Your task to perform on an android device: check storage Image 0: 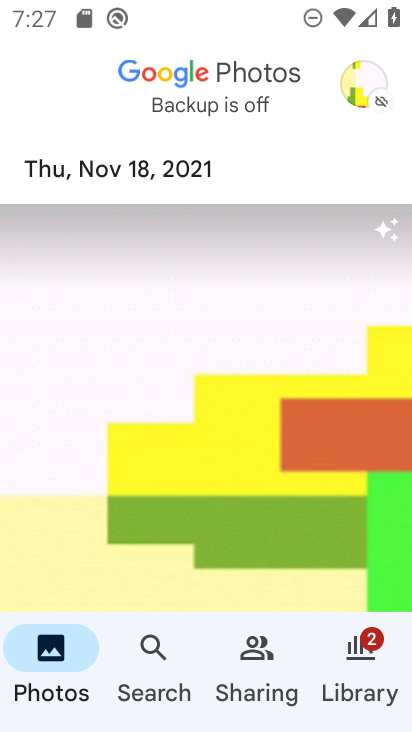
Step 0: press home button
Your task to perform on an android device: check storage Image 1: 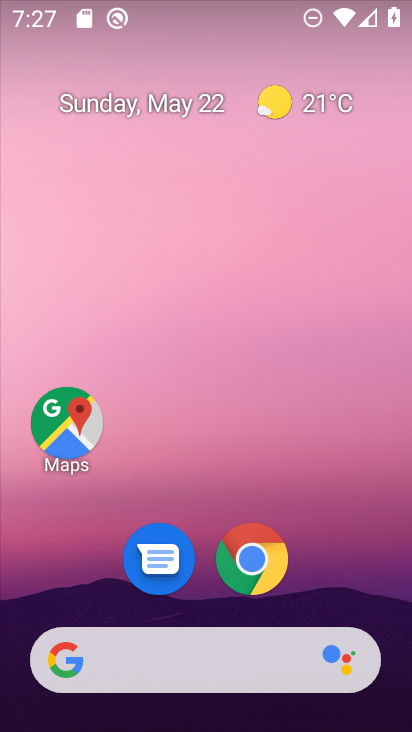
Step 1: drag from (257, 658) to (342, 316)
Your task to perform on an android device: check storage Image 2: 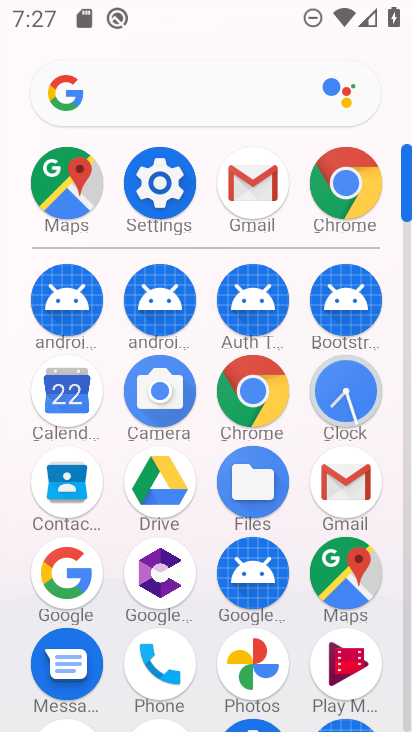
Step 2: click (155, 216)
Your task to perform on an android device: check storage Image 3: 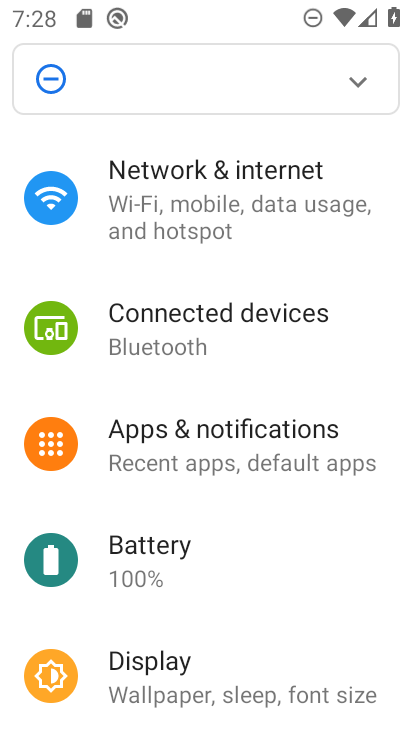
Step 3: click (163, 87)
Your task to perform on an android device: check storage Image 4: 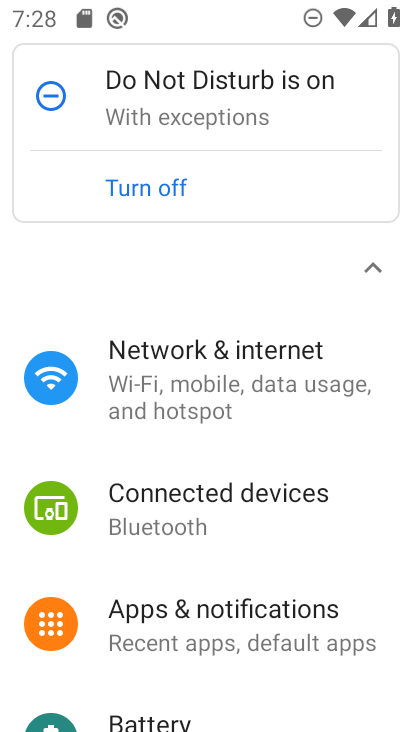
Step 4: drag from (199, 297) to (260, 456)
Your task to perform on an android device: check storage Image 5: 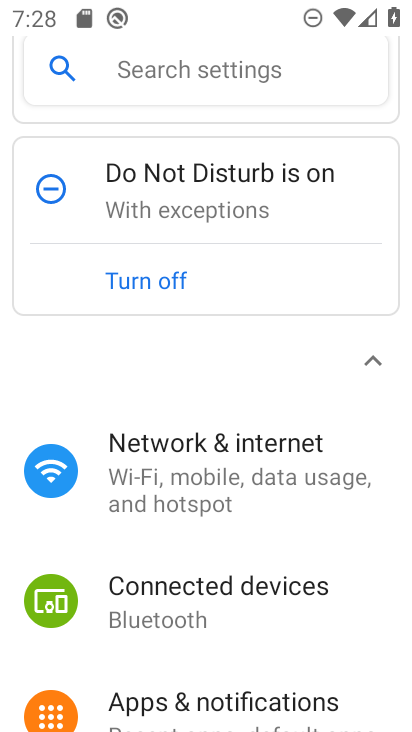
Step 5: click (167, 97)
Your task to perform on an android device: check storage Image 6: 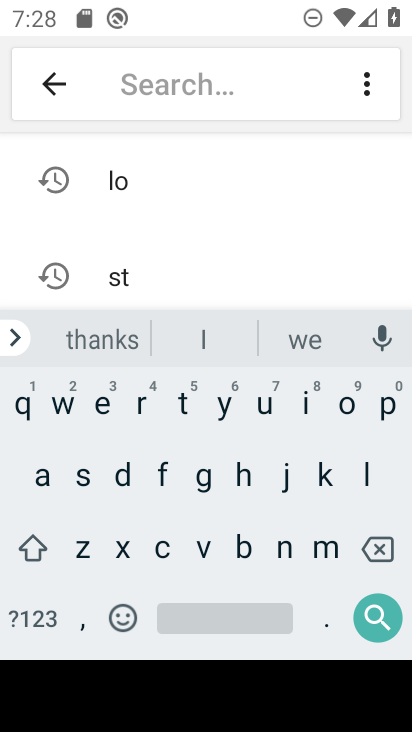
Step 6: click (82, 479)
Your task to perform on an android device: check storage Image 7: 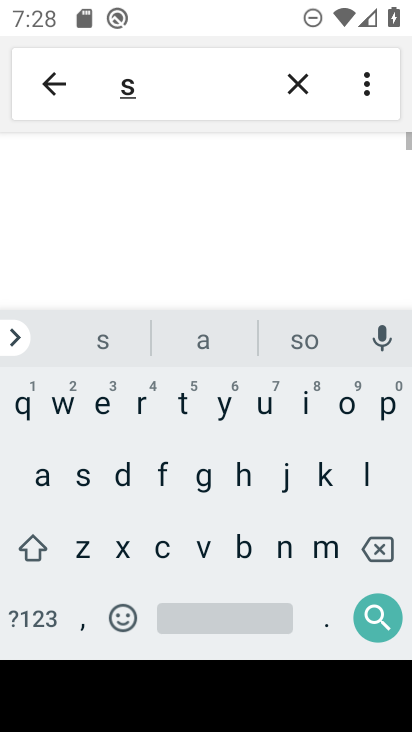
Step 7: click (183, 412)
Your task to perform on an android device: check storage Image 8: 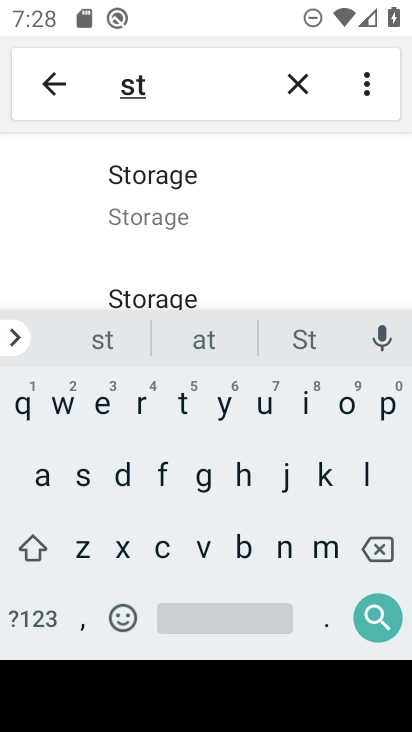
Step 8: click (198, 217)
Your task to perform on an android device: check storage Image 9: 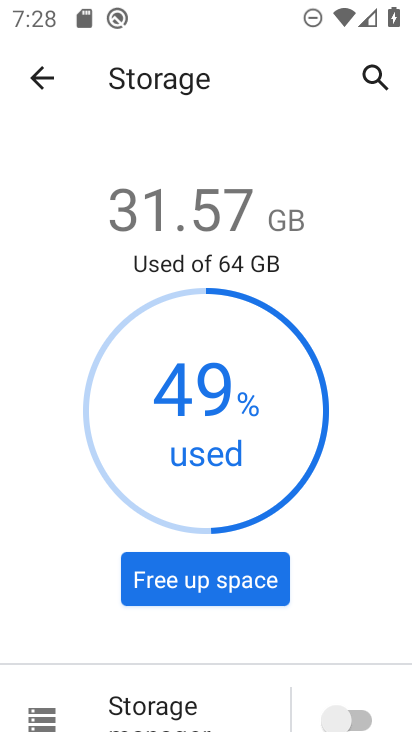
Step 9: task complete